Your task to perform on an android device: Open display settings Image 0: 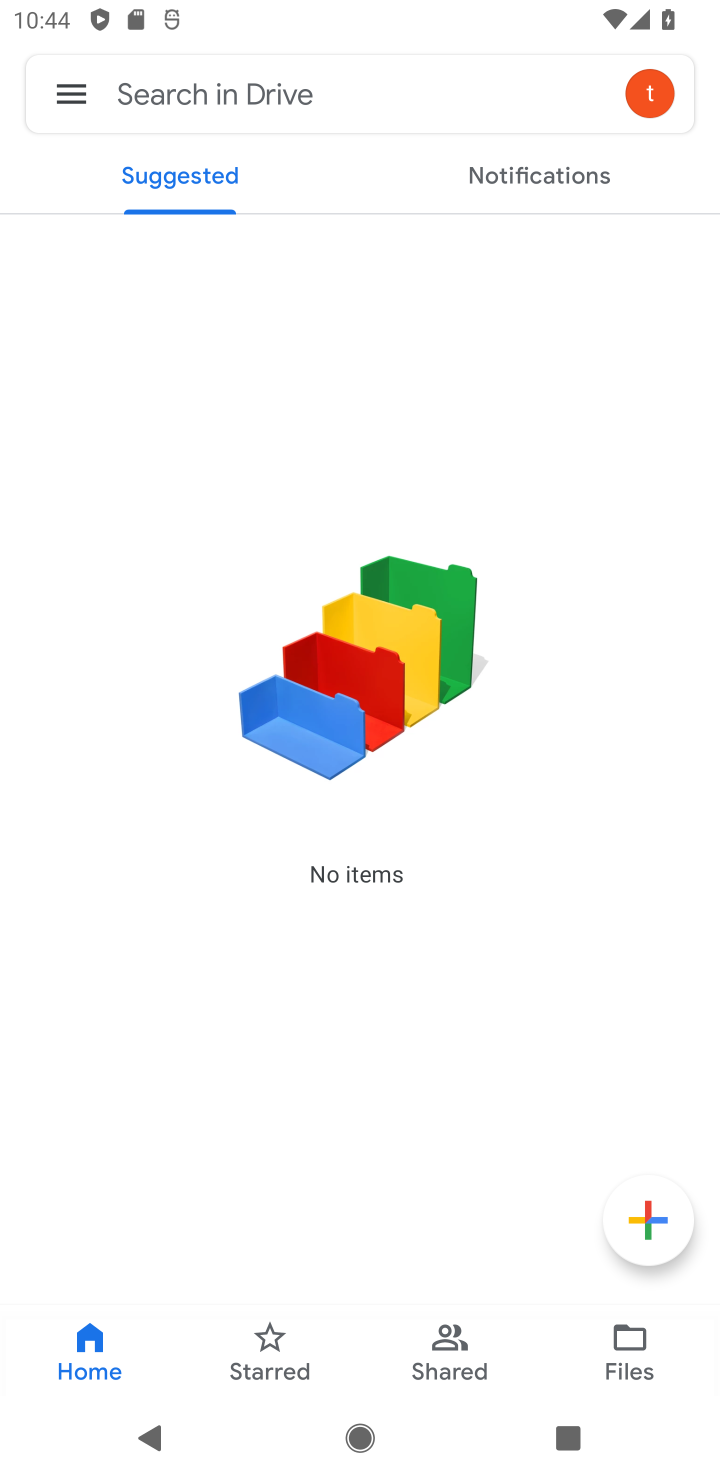
Step 0: press back button
Your task to perform on an android device: Open display settings Image 1: 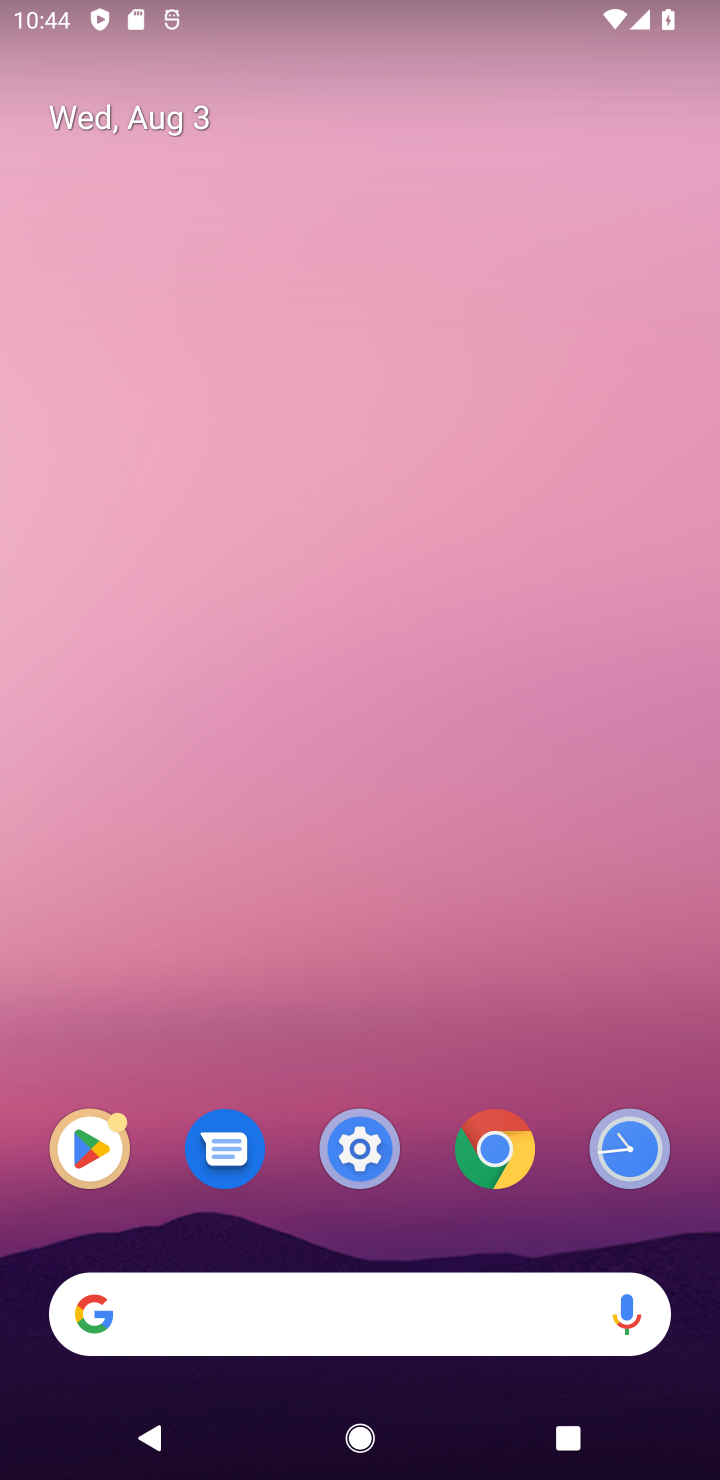
Step 1: click (387, 1134)
Your task to perform on an android device: Open display settings Image 2: 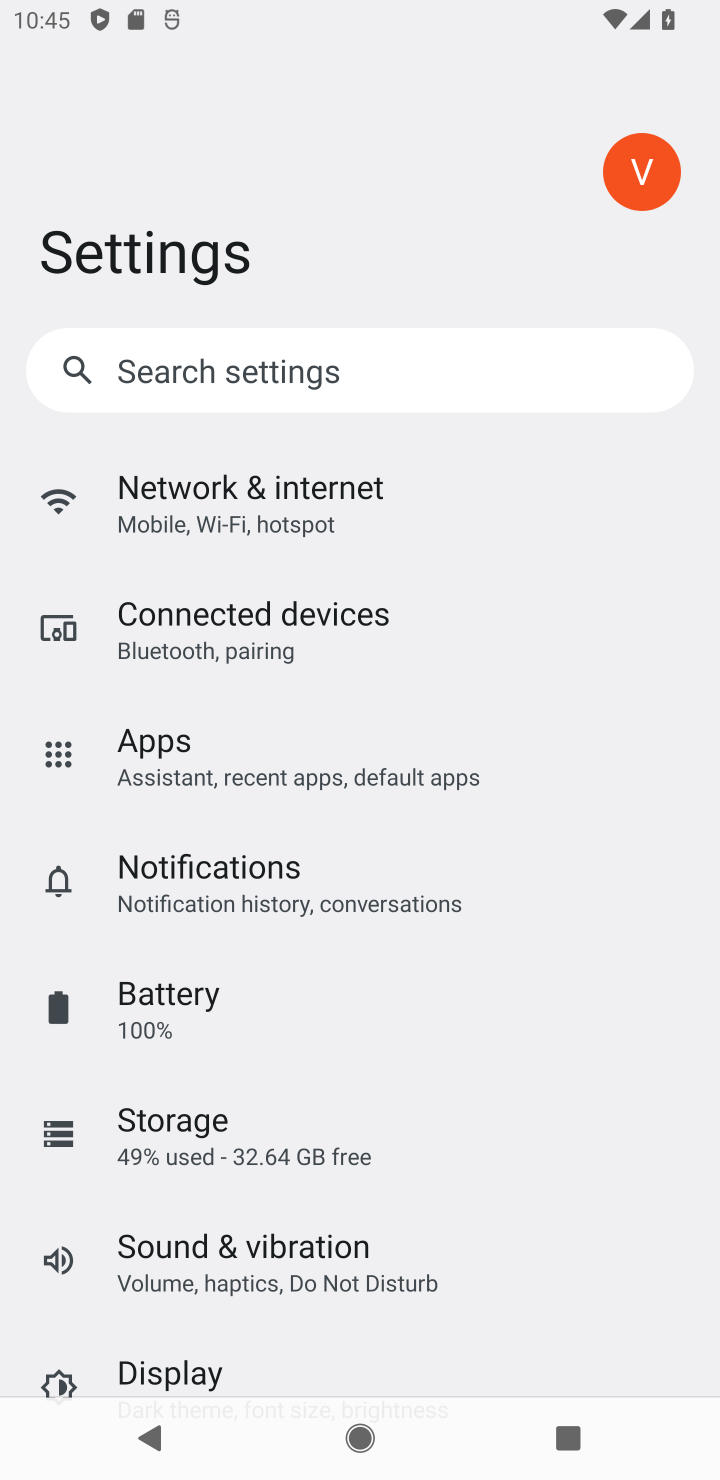
Step 2: click (387, 1367)
Your task to perform on an android device: Open display settings Image 3: 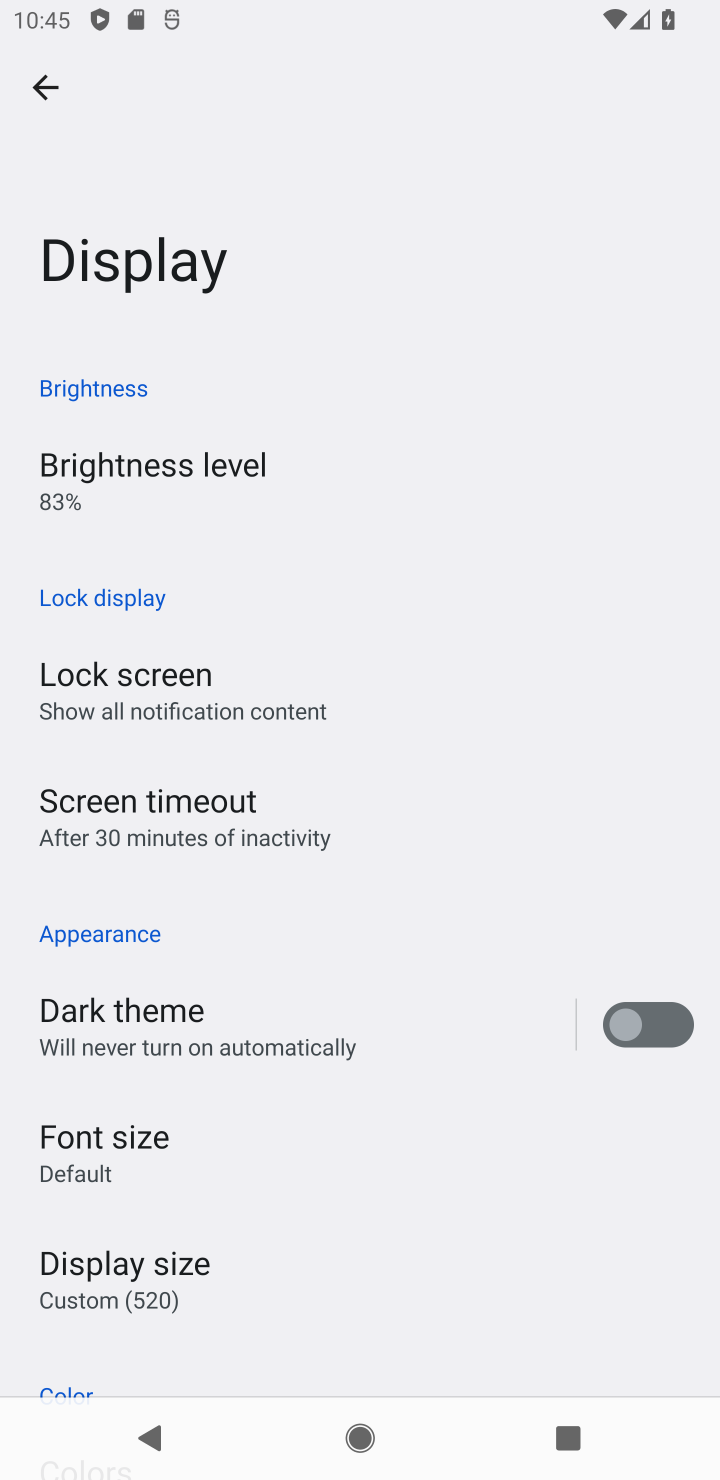
Step 3: task complete